Your task to perform on an android device: turn on priority inbox in the gmail app Image 0: 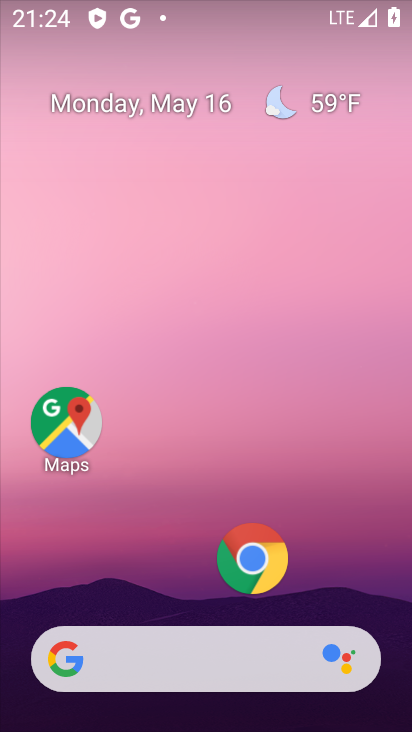
Step 0: drag from (159, 554) to (230, 91)
Your task to perform on an android device: turn on priority inbox in the gmail app Image 1: 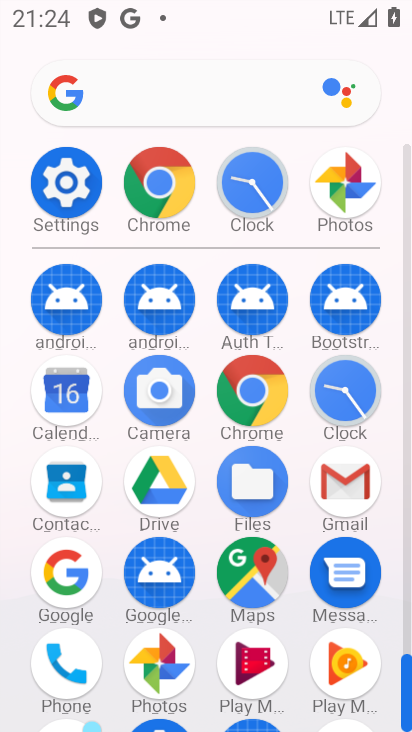
Step 1: click (325, 485)
Your task to perform on an android device: turn on priority inbox in the gmail app Image 2: 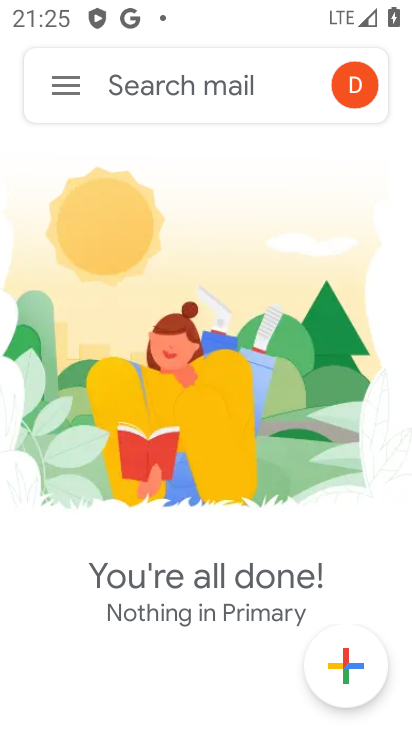
Step 2: click (81, 91)
Your task to perform on an android device: turn on priority inbox in the gmail app Image 3: 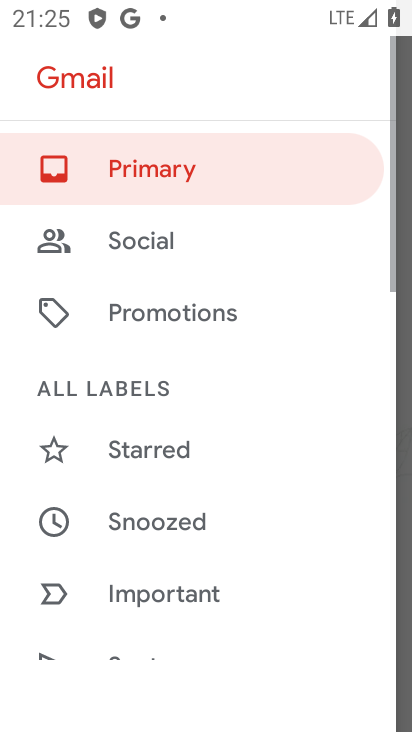
Step 3: drag from (189, 613) to (302, 37)
Your task to perform on an android device: turn on priority inbox in the gmail app Image 4: 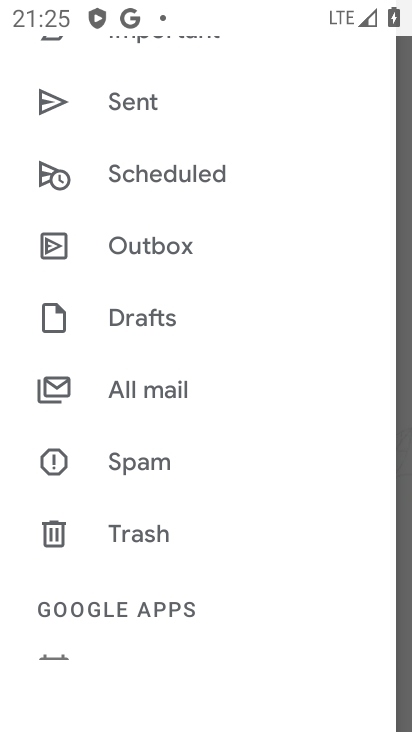
Step 4: drag from (172, 517) to (268, 60)
Your task to perform on an android device: turn on priority inbox in the gmail app Image 5: 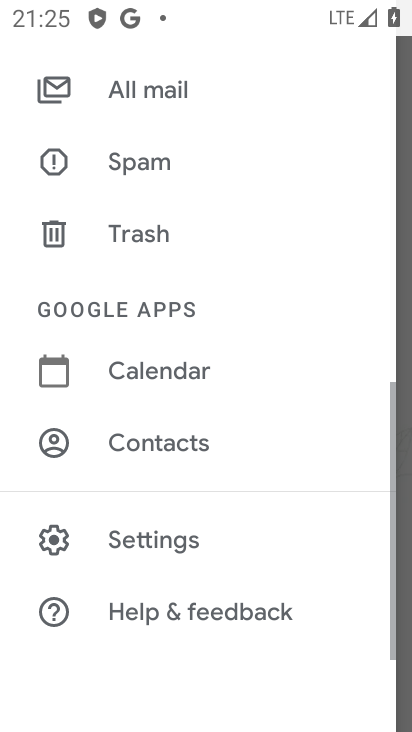
Step 5: click (124, 525)
Your task to perform on an android device: turn on priority inbox in the gmail app Image 6: 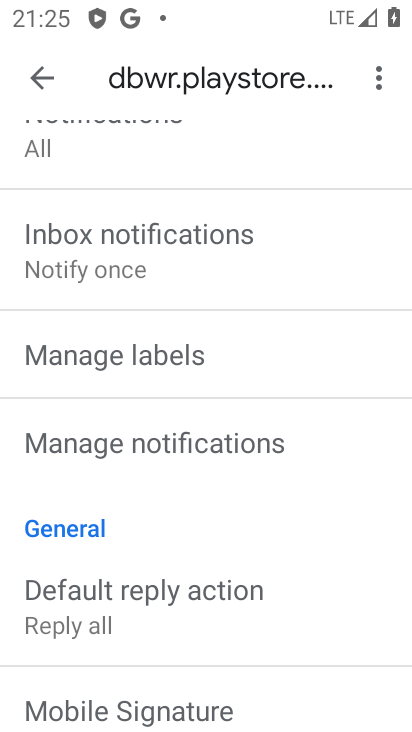
Step 6: drag from (181, 203) to (168, 706)
Your task to perform on an android device: turn on priority inbox in the gmail app Image 7: 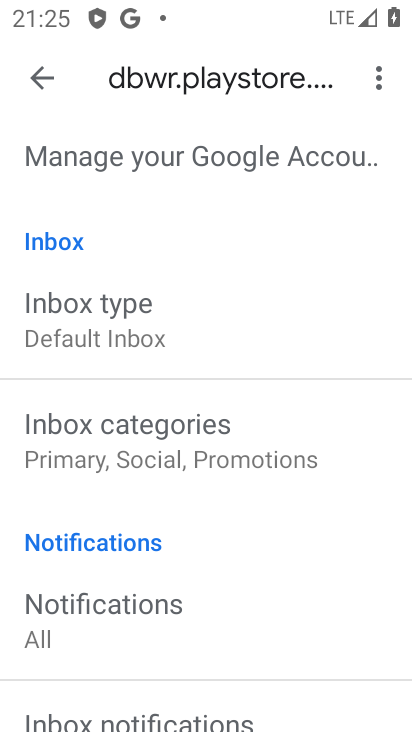
Step 7: click (90, 334)
Your task to perform on an android device: turn on priority inbox in the gmail app Image 8: 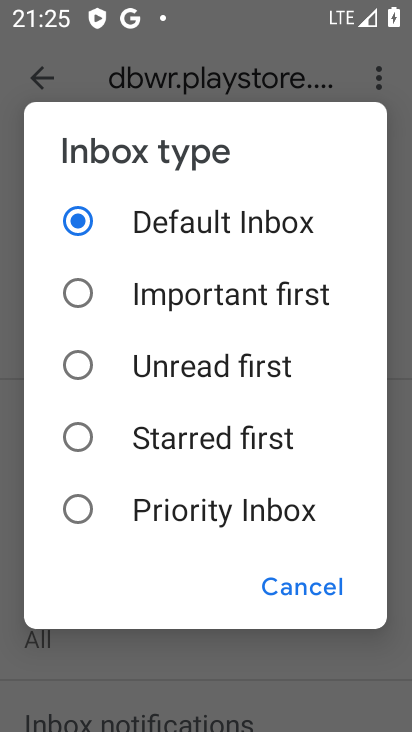
Step 8: click (91, 515)
Your task to perform on an android device: turn on priority inbox in the gmail app Image 9: 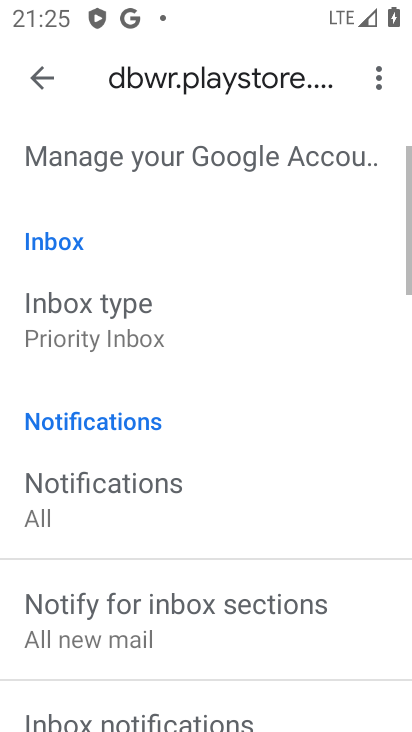
Step 9: task complete